Your task to perform on an android device: Go to calendar. Show me events next week Image 0: 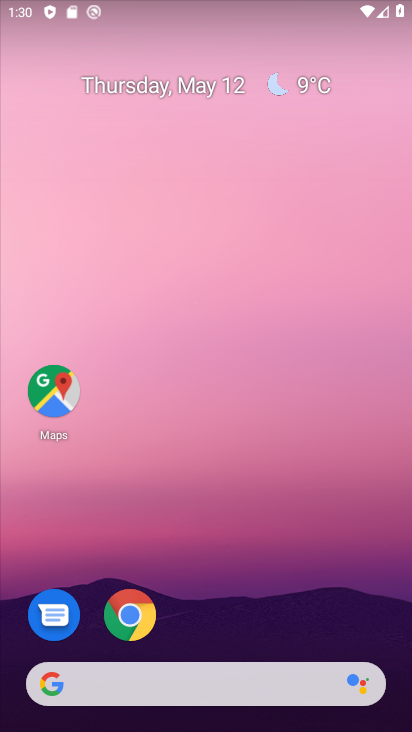
Step 0: drag from (272, 702) to (246, 208)
Your task to perform on an android device: Go to calendar. Show me events next week Image 1: 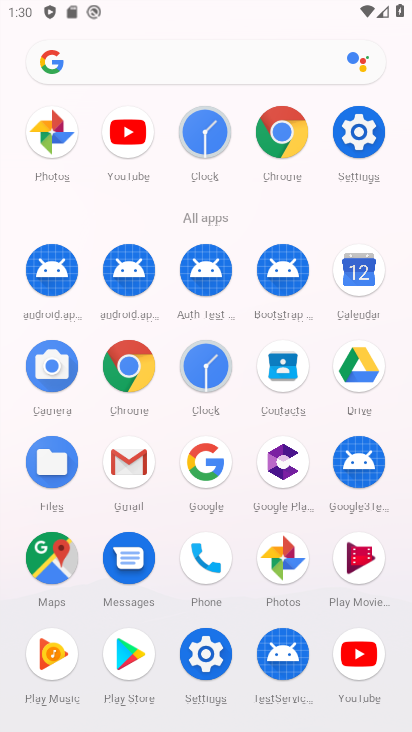
Step 1: click (347, 288)
Your task to perform on an android device: Go to calendar. Show me events next week Image 2: 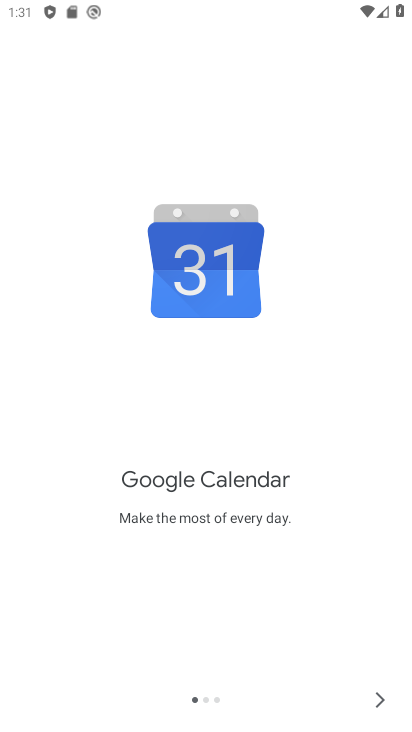
Step 2: click (375, 703)
Your task to perform on an android device: Go to calendar. Show me events next week Image 3: 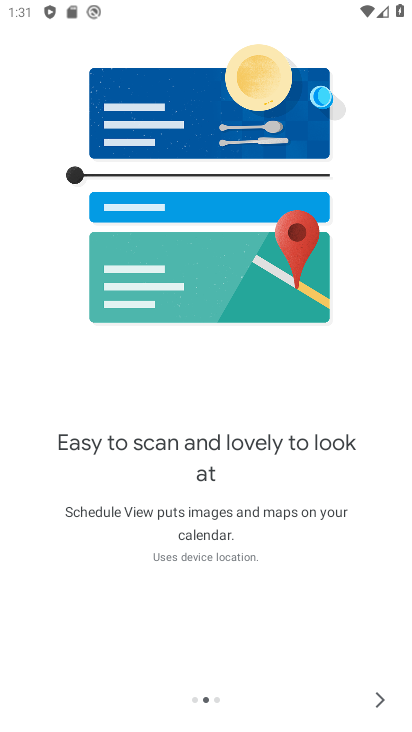
Step 3: click (383, 706)
Your task to perform on an android device: Go to calendar. Show me events next week Image 4: 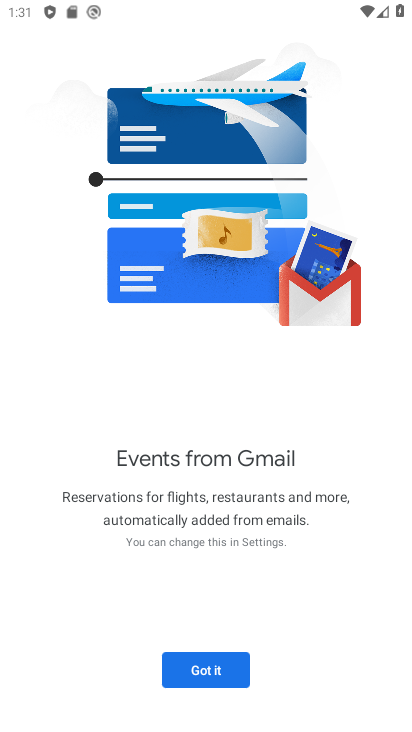
Step 4: click (185, 678)
Your task to perform on an android device: Go to calendar. Show me events next week Image 5: 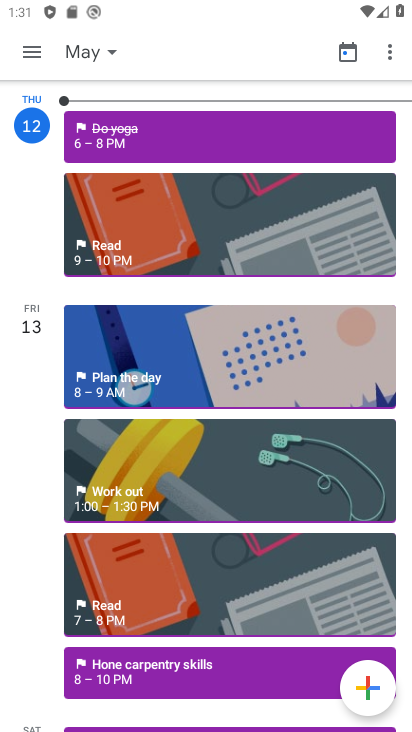
Step 5: click (37, 45)
Your task to perform on an android device: Go to calendar. Show me events next week Image 6: 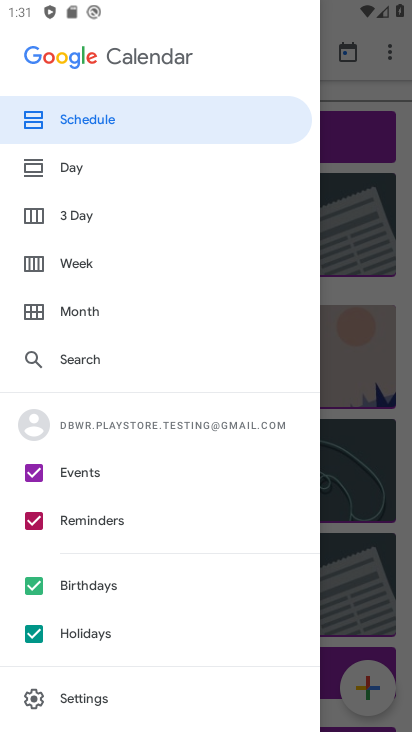
Step 6: click (85, 269)
Your task to perform on an android device: Go to calendar. Show me events next week Image 7: 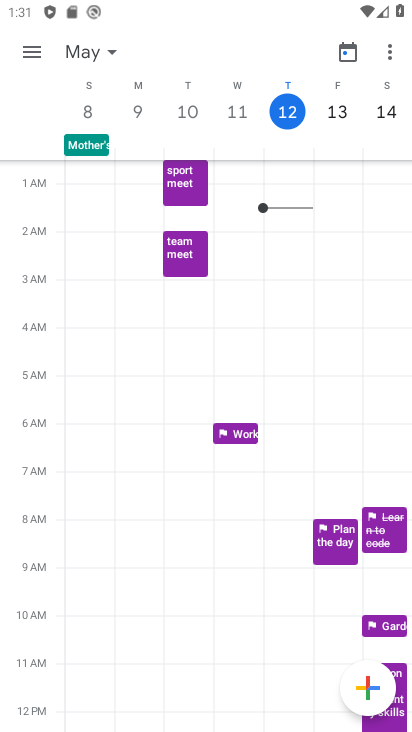
Step 7: task complete